Your task to perform on an android device: Open Android settings Image 0: 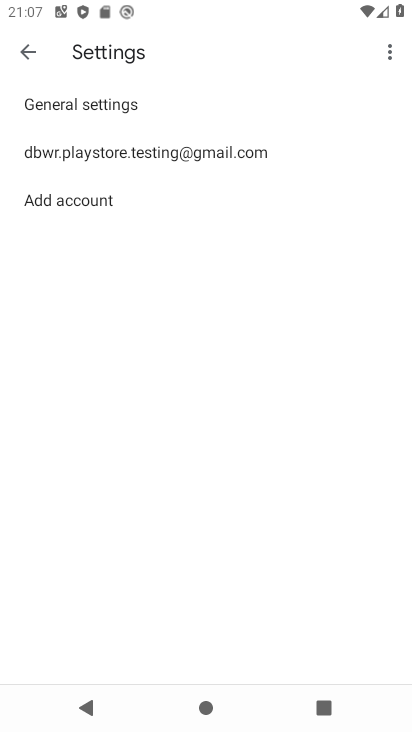
Step 0: press home button
Your task to perform on an android device: Open Android settings Image 1: 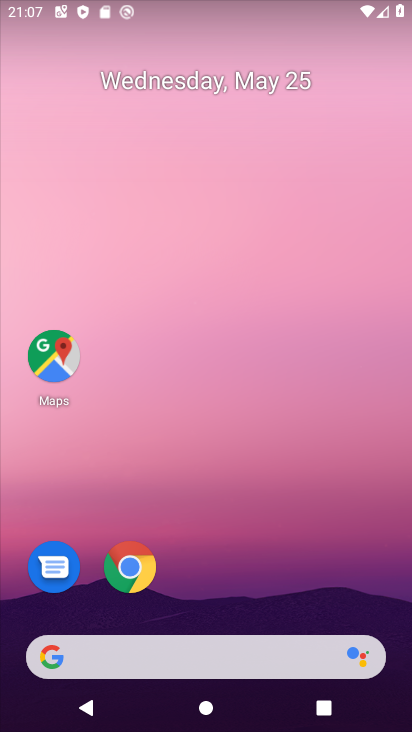
Step 1: drag from (237, 551) to (262, 24)
Your task to perform on an android device: Open Android settings Image 2: 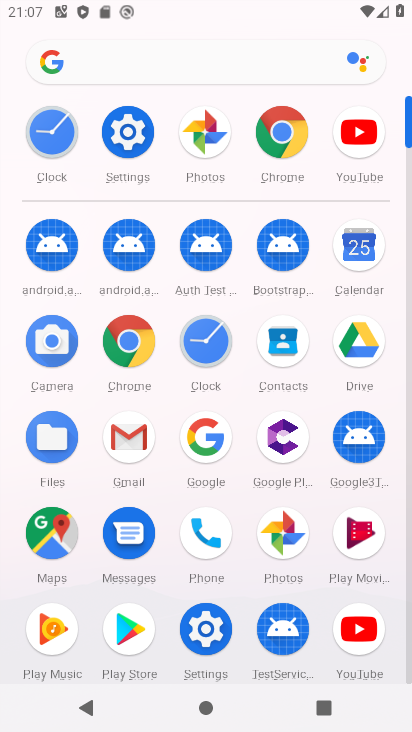
Step 2: click (197, 626)
Your task to perform on an android device: Open Android settings Image 3: 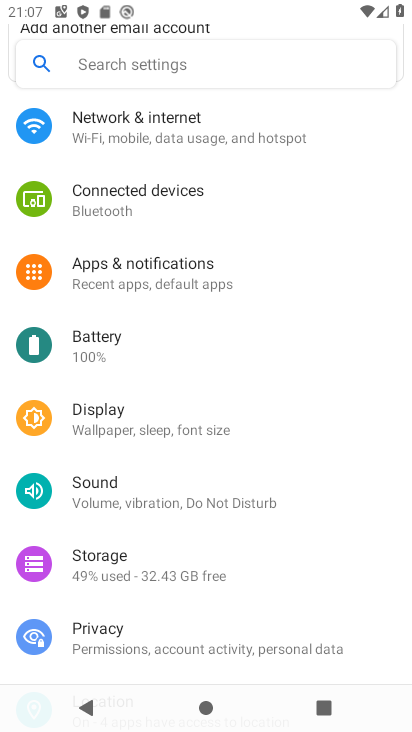
Step 3: drag from (248, 542) to (291, 106)
Your task to perform on an android device: Open Android settings Image 4: 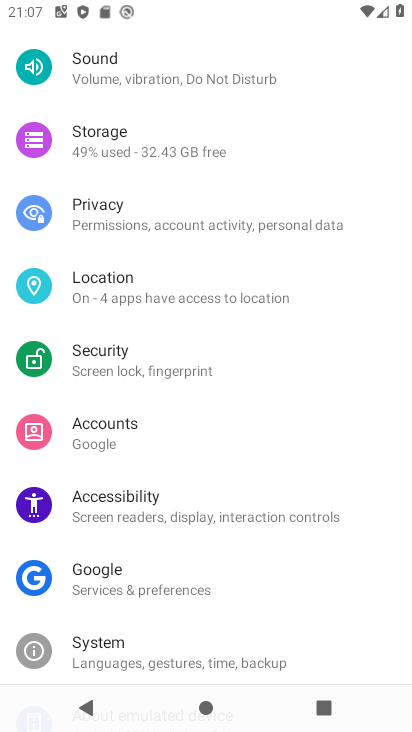
Step 4: drag from (203, 613) to (230, 371)
Your task to perform on an android device: Open Android settings Image 5: 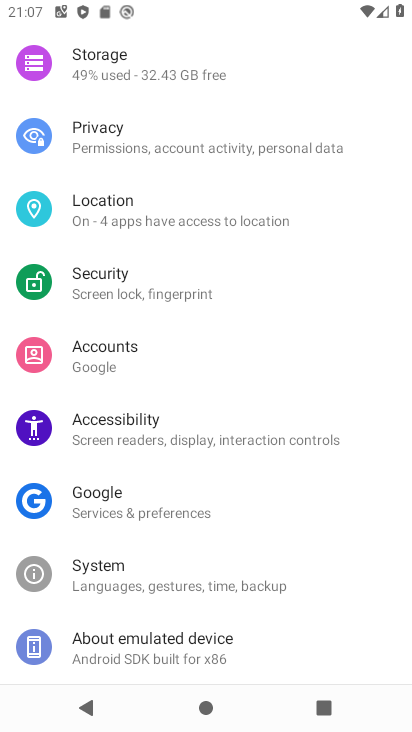
Step 5: click (167, 639)
Your task to perform on an android device: Open Android settings Image 6: 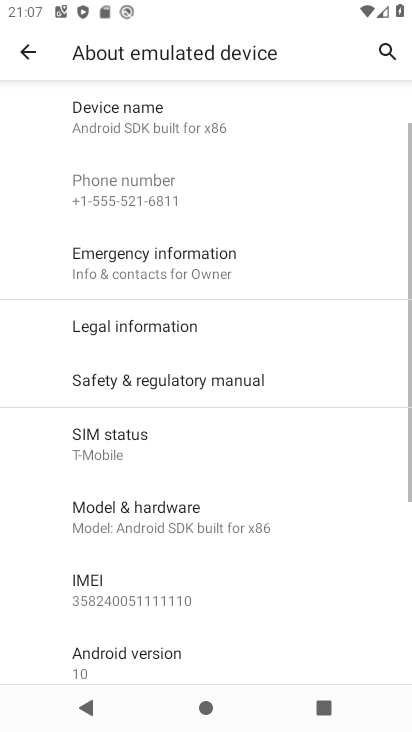
Step 6: task complete